Your task to perform on an android device: Open Reddit.com Image 0: 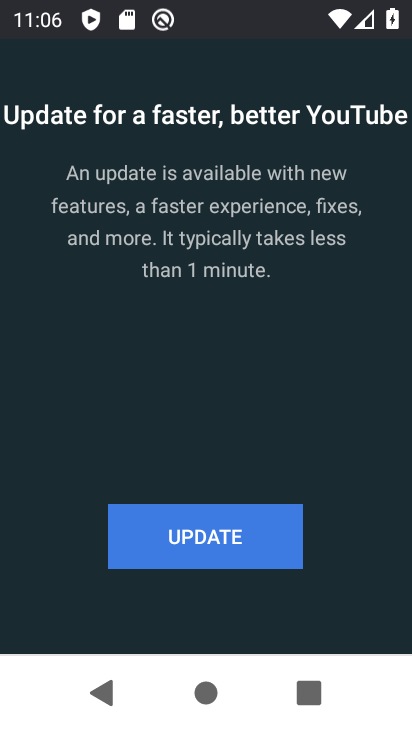
Step 0: press home button
Your task to perform on an android device: Open Reddit.com Image 1: 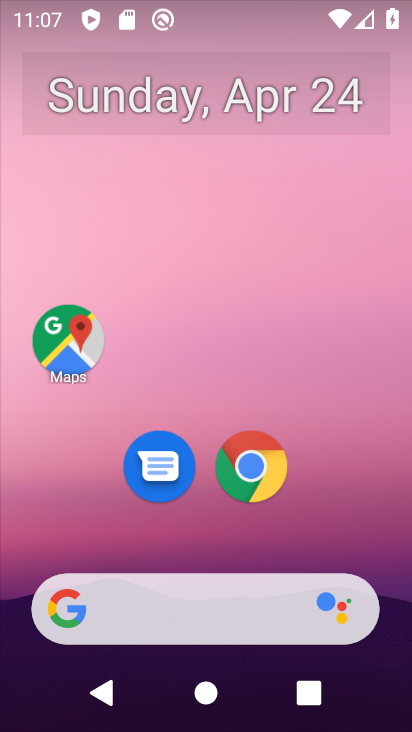
Step 1: click (249, 481)
Your task to perform on an android device: Open Reddit.com Image 2: 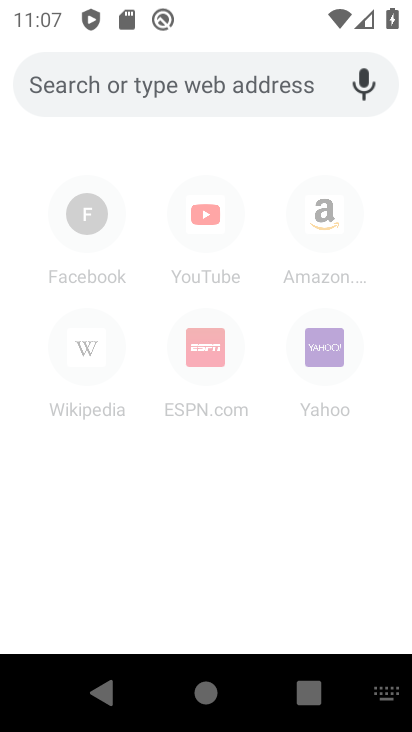
Step 2: type "reddit"
Your task to perform on an android device: Open Reddit.com Image 3: 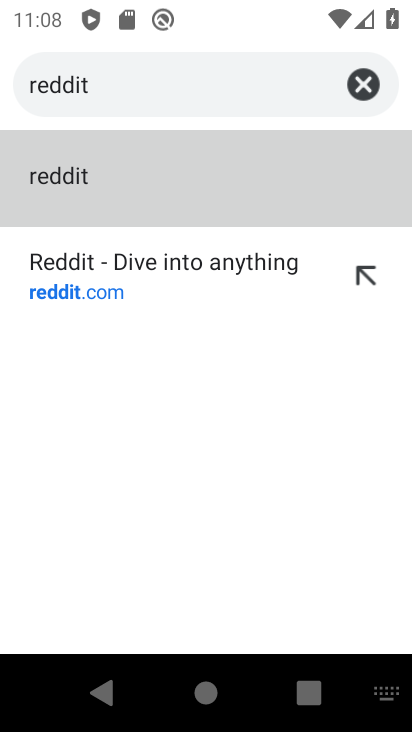
Step 3: click (91, 287)
Your task to perform on an android device: Open Reddit.com Image 4: 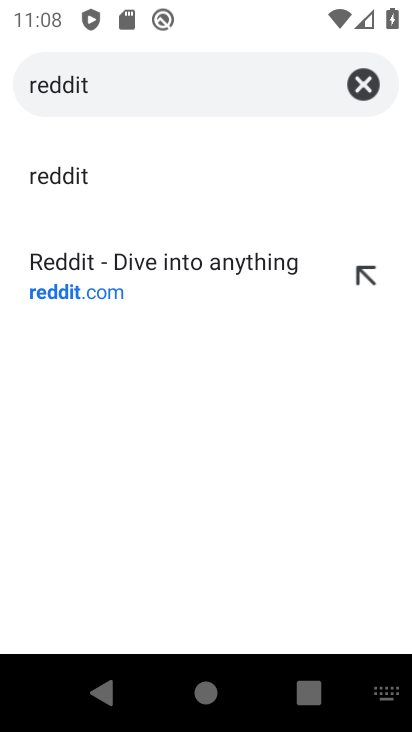
Step 4: click (105, 291)
Your task to perform on an android device: Open Reddit.com Image 5: 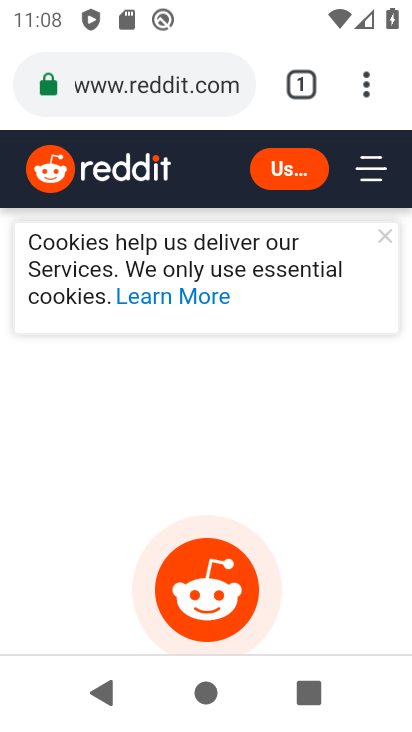
Step 5: task complete